Your task to perform on an android device: View the shopping cart on walmart. Add "bose soundlink mini" to the cart on walmart Image 0: 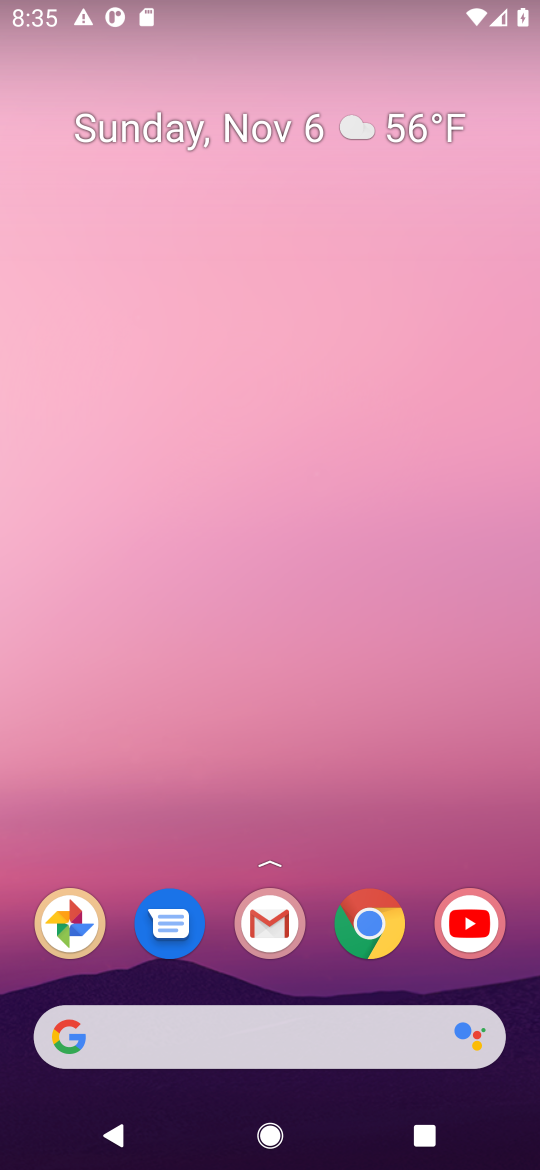
Step 0: click (387, 917)
Your task to perform on an android device: View the shopping cart on walmart. Add "bose soundlink mini" to the cart on walmart Image 1: 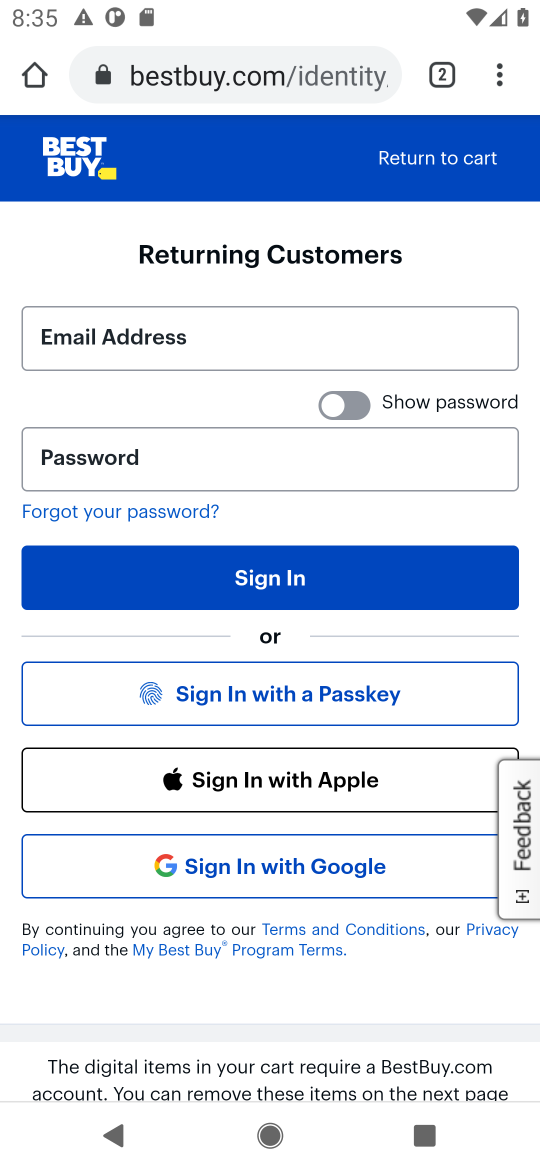
Step 1: click (248, 80)
Your task to perform on an android device: View the shopping cart on walmart. Add "bose soundlink mini" to the cart on walmart Image 2: 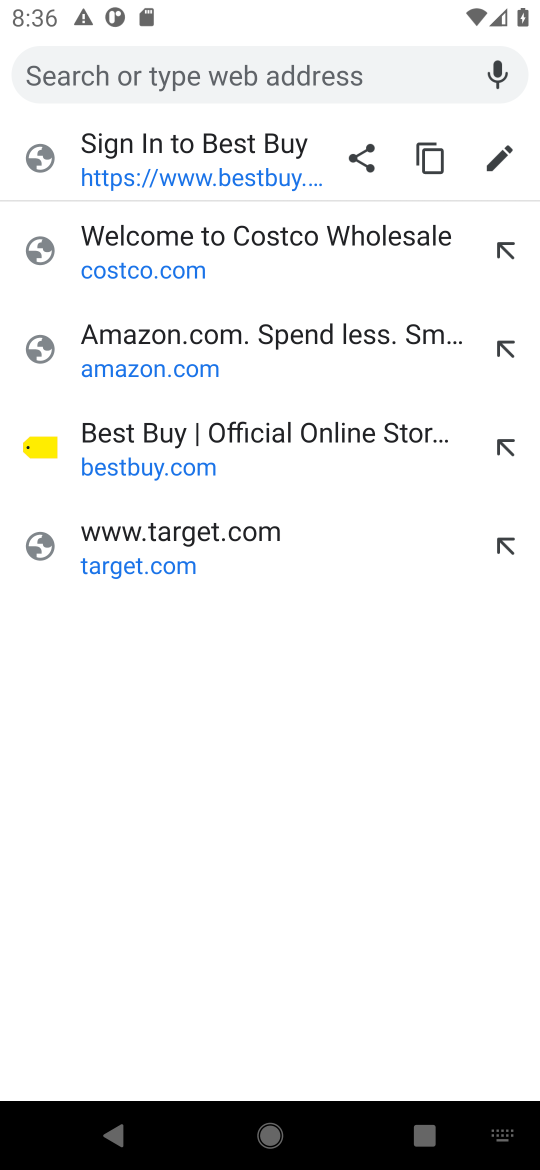
Step 2: type "walmart.com"
Your task to perform on an android device: View the shopping cart on walmart. Add "bose soundlink mini" to the cart on walmart Image 3: 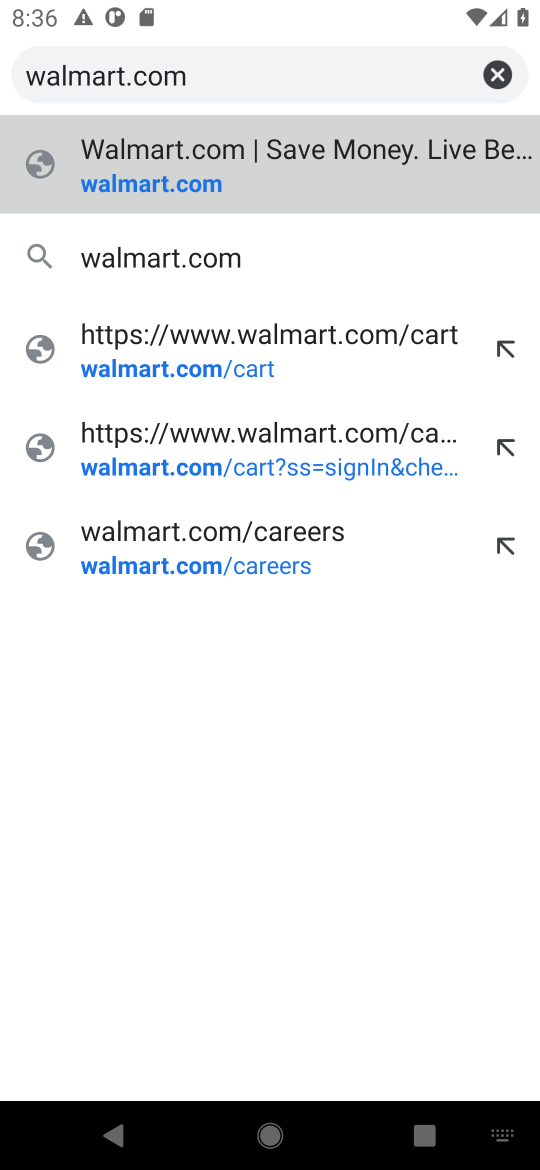
Step 3: click (146, 195)
Your task to perform on an android device: View the shopping cart on walmart. Add "bose soundlink mini" to the cart on walmart Image 4: 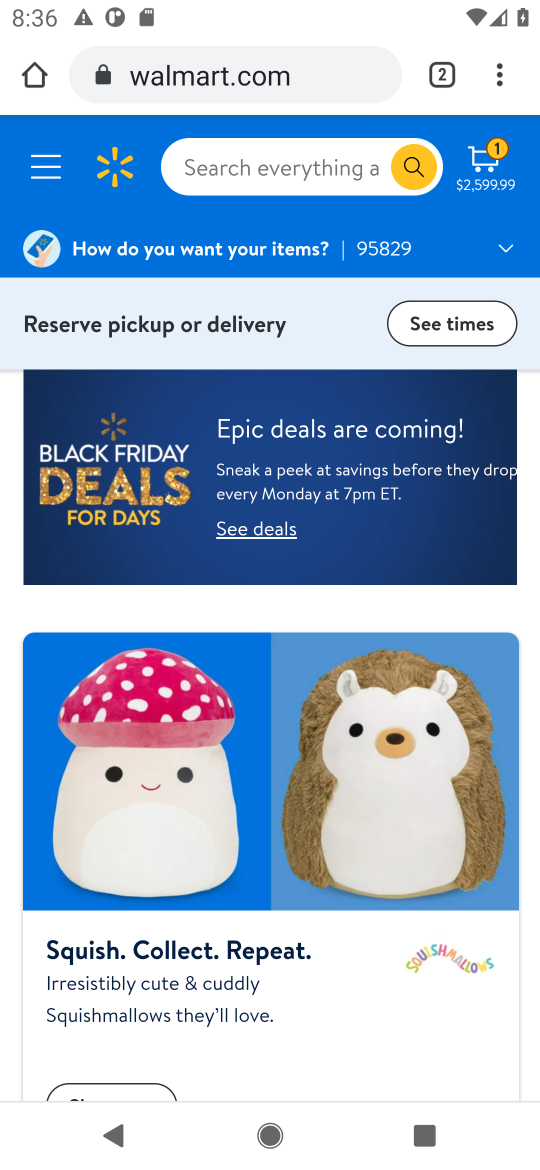
Step 4: drag from (226, 854) to (234, 445)
Your task to perform on an android device: View the shopping cart on walmart. Add "bose soundlink mini" to the cart on walmart Image 5: 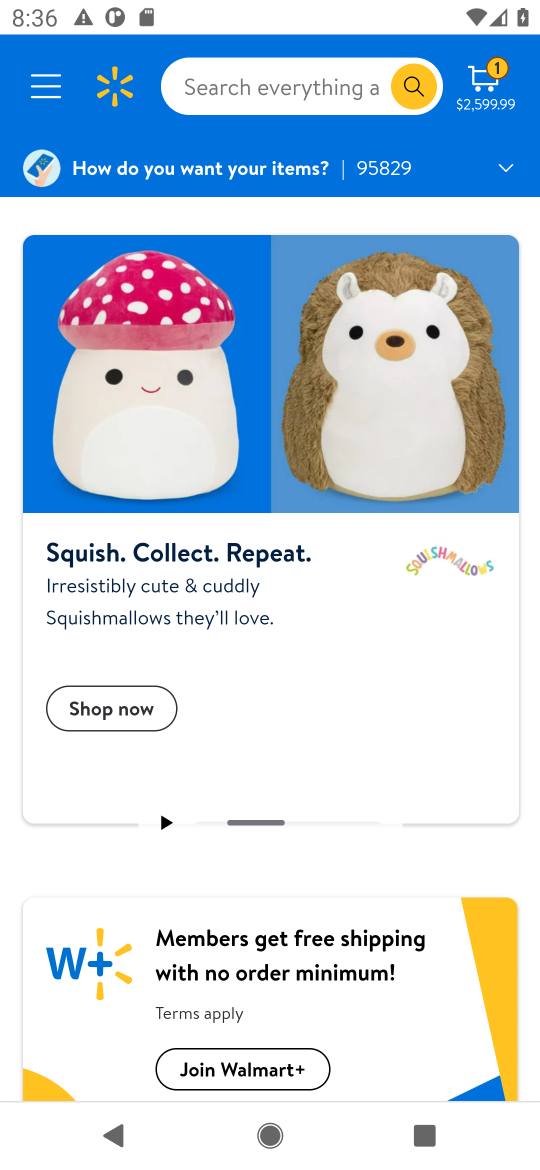
Step 5: click (488, 95)
Your task to perform on an android device: View the shopping cart on walmart. Add "bose soundlink mini" to the cart on walmart Image 6: 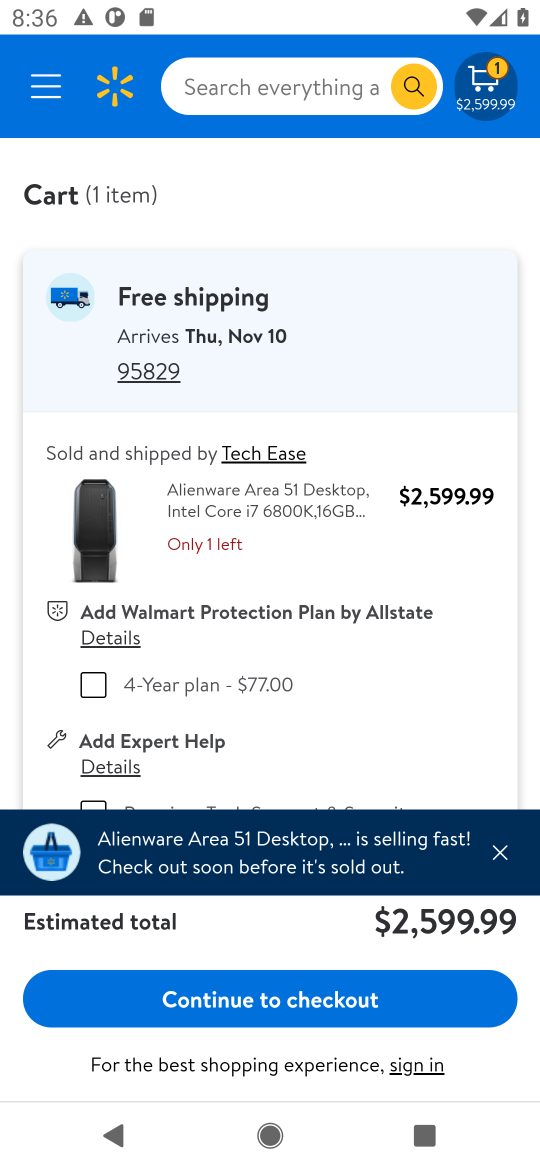
Step 6: click (322, 89)
Your task to perform on an android device: View the shopping cart on walmart. Add "bose soundlink mini" to the cart on walmart Image 7: 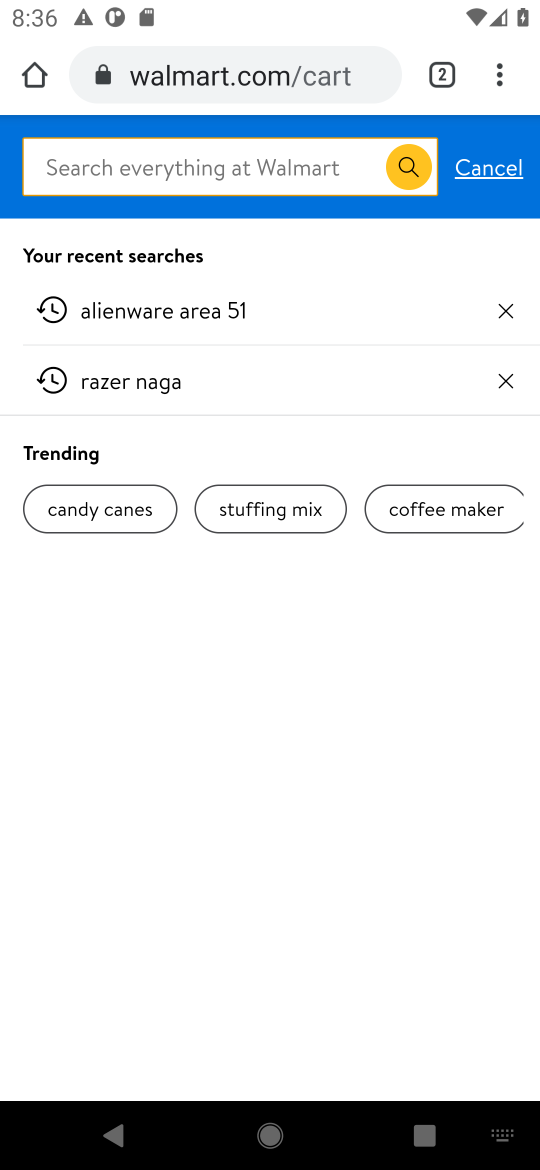
Step 7: type "bose soundlink mini"
Your task to perform on an android device: View the shopping cart on walmart. Add "bose soundlink mini" to the cart on walmart Image 8: 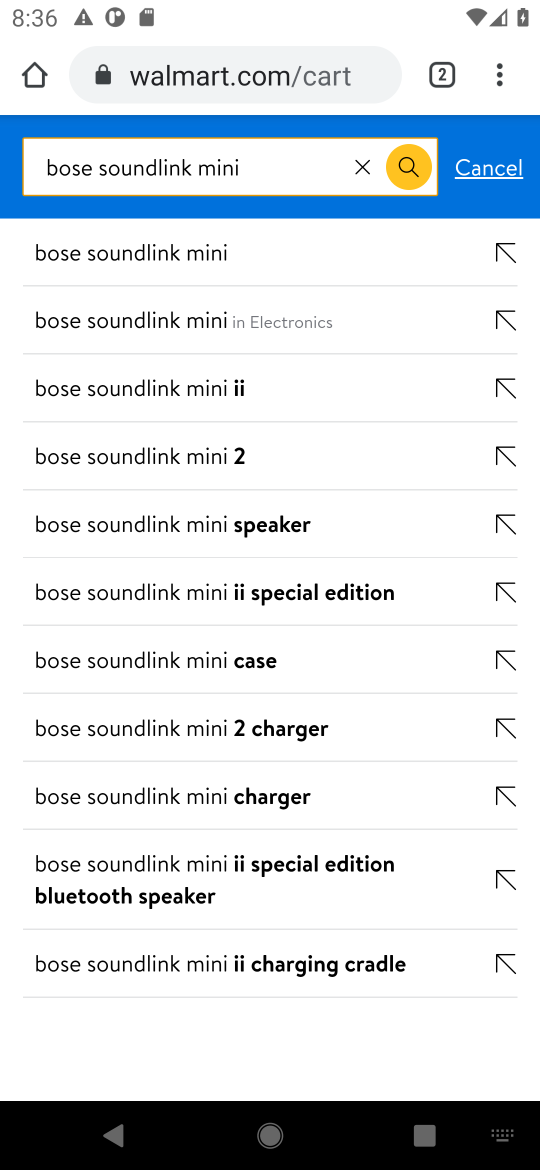
Step 8: click (147, 254)
Your task to perform on an android device: View the shopping cart on walmart. Add "bose soundlink mini" to the cart on walmart Image 9: 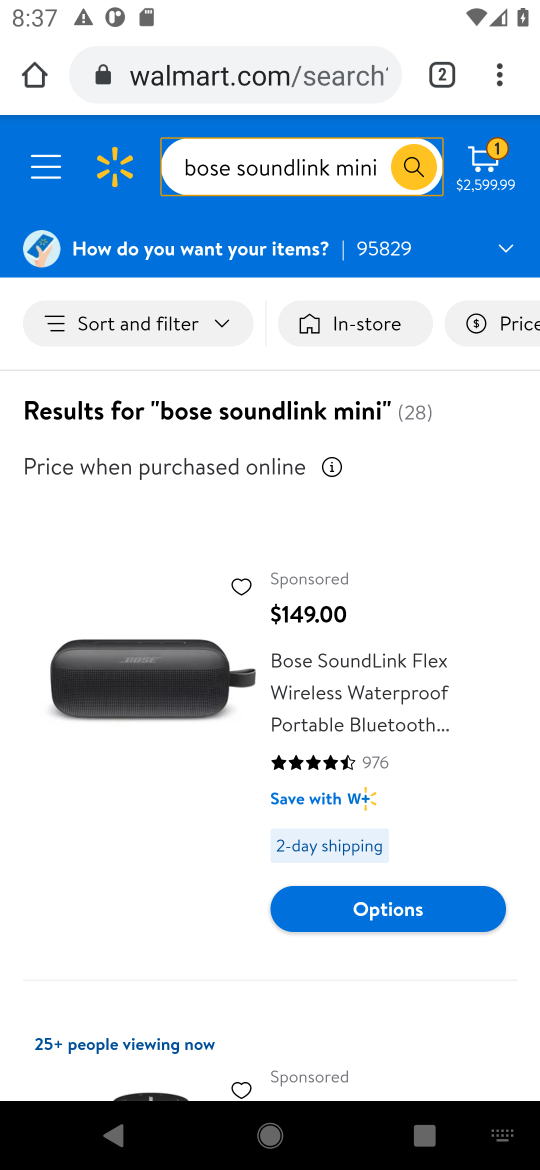
Step 9: drag from (297, 502) to (302, 281)
Your task to perform on an android device: View the shopping cart on walmart. Add "bose soundlink mini" to the cart on walmart Image 10: 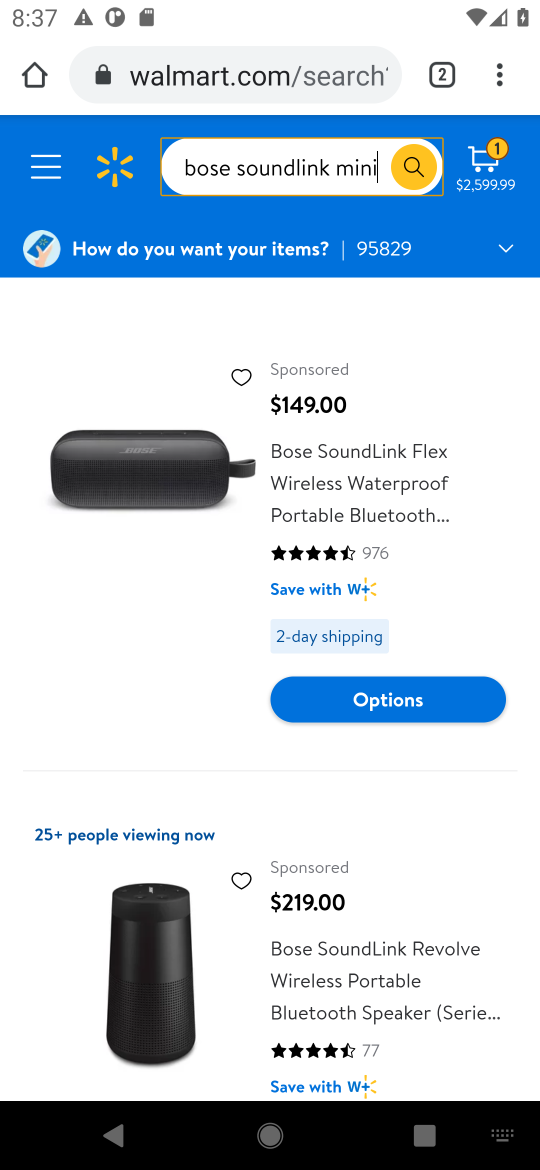
Step 10: drag from (225, 965) to (255, 234)
Your task to perform on an android device: View the shopping cart on walmart. Add "bose soundlink mini" to the cart on walmart Image 11: 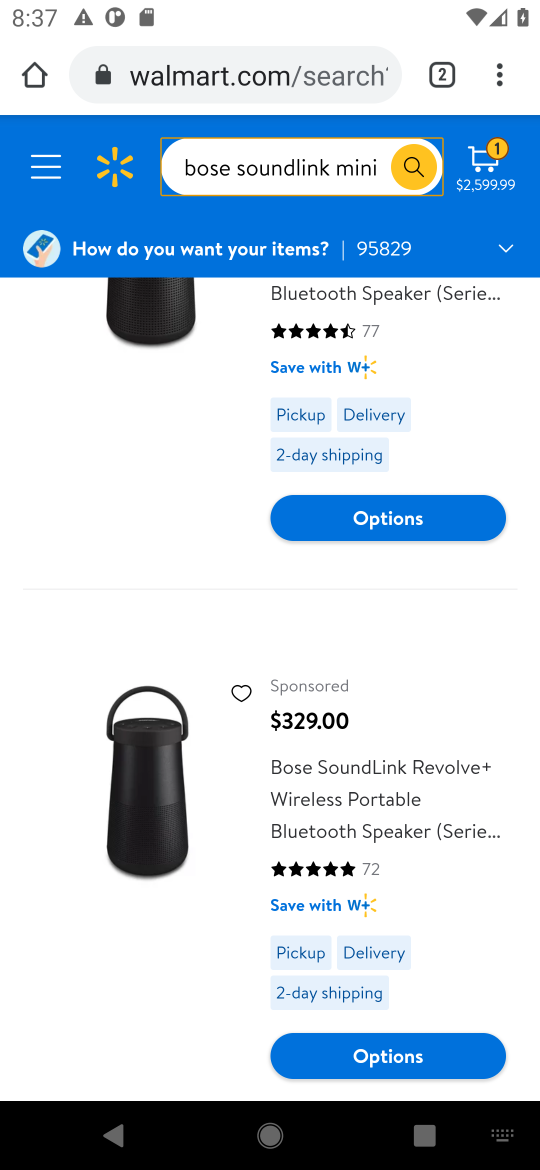
Step 11: drag from (215, 964) to (246, 383)
Your task to perform on an android device: View the shopping cart on walmart. Add "bose soundlink mini" to the cart on walmart Image 12: 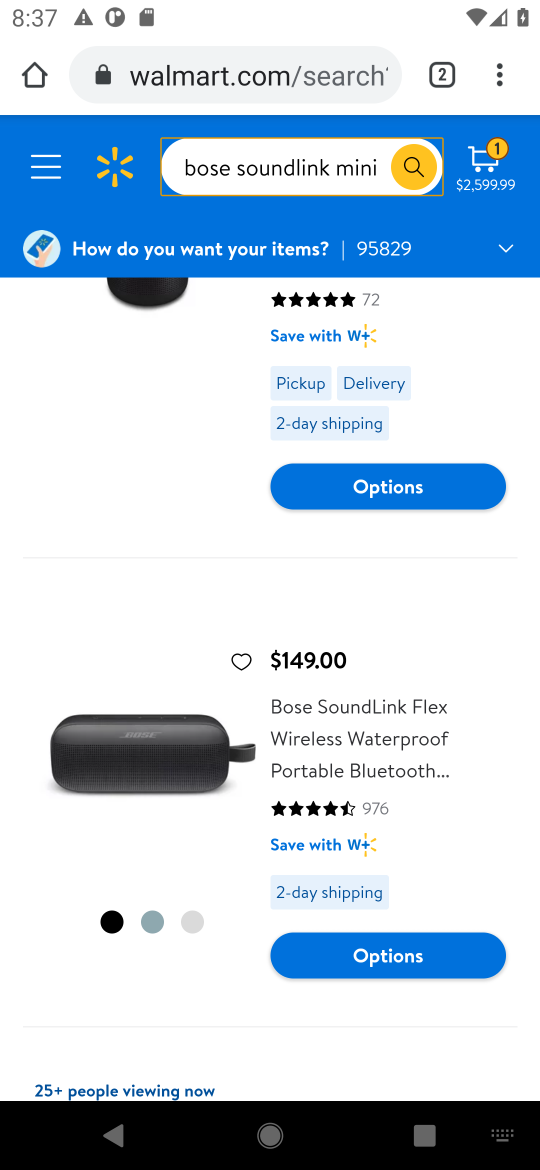
Step 12: drag from (254, 857) to (262, 307)
Your task to perform on an android device: View the shopping cart on walmart. Add "bose soundlink mini" to the cart on walmart Image 13: 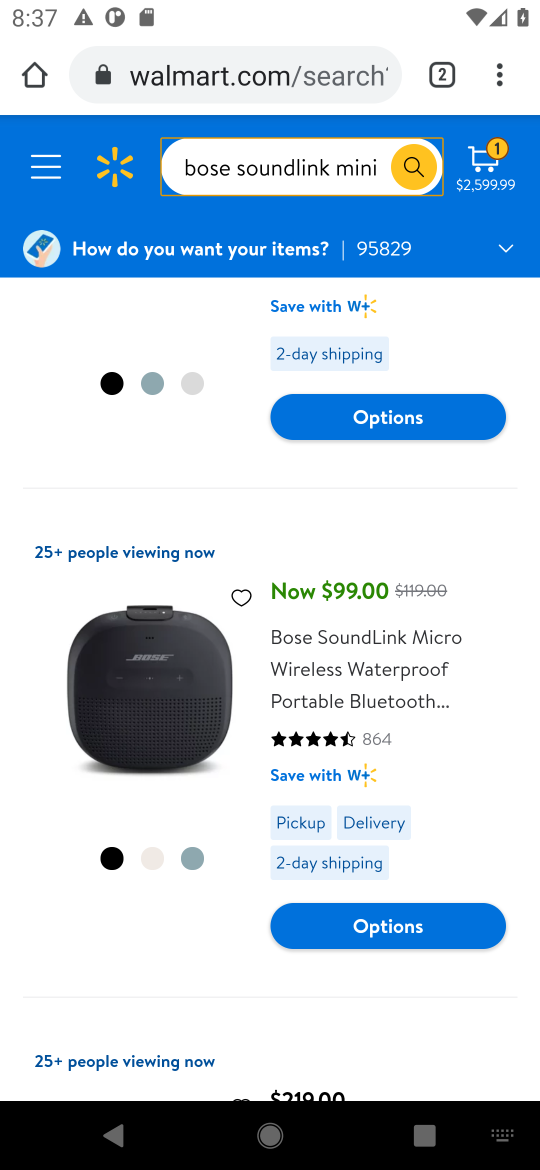
Step 13: drag from (224, 798) to (260, 225)
Your task to perform on an android device: View the shopping cart on walmart. Add "bose soundlink mini" to the cart on walmart Image 14: 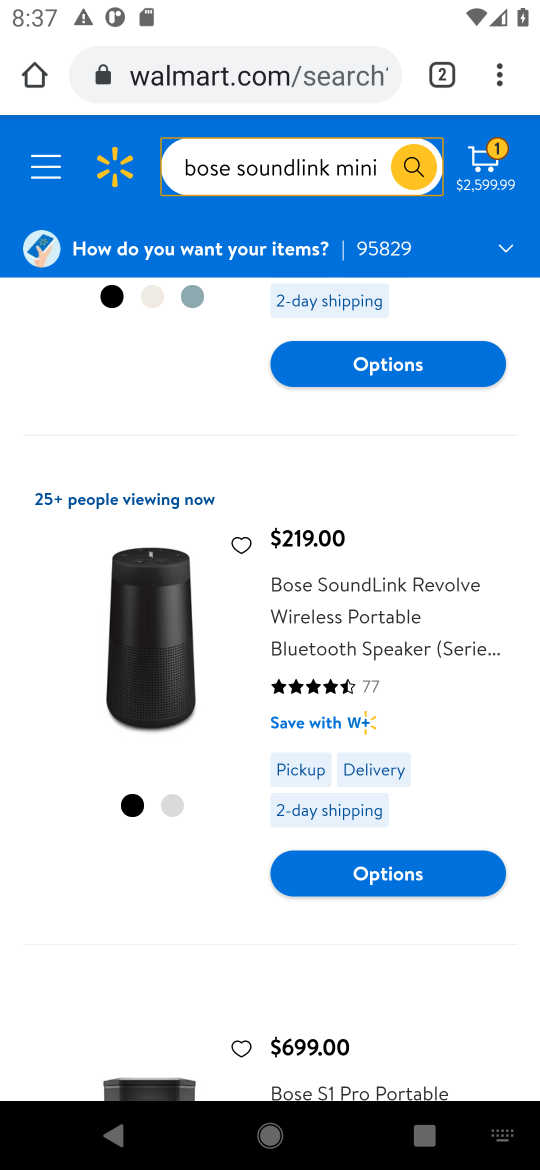
Step 14: drag from (228, 714) to (239, 239)
Your task to perform on an android device: View the shopping cart on walmart. Add "bose soundlink mini" to the cart on walmart Image 15: 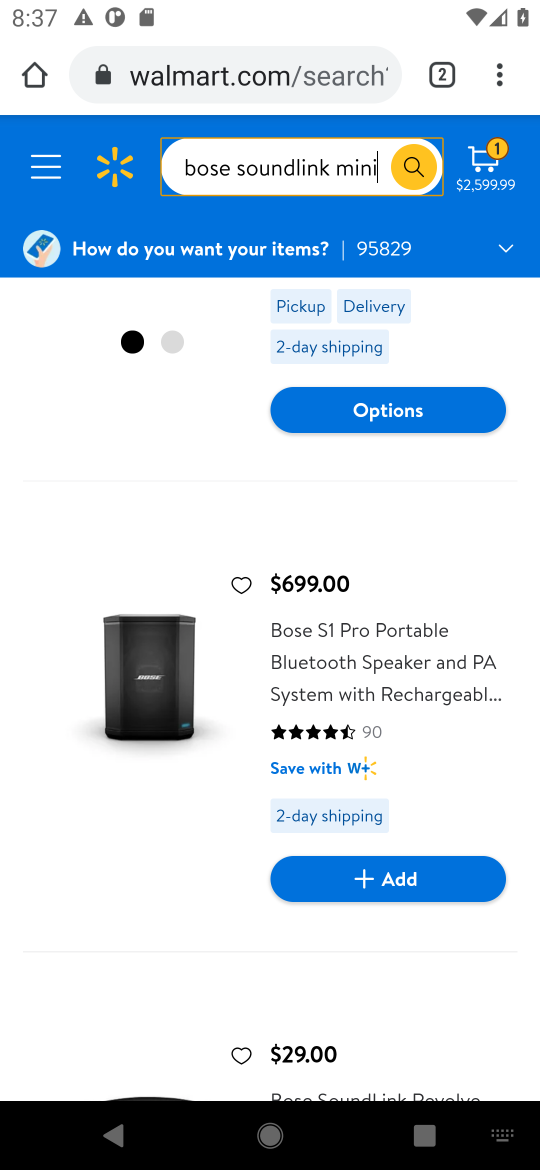
Step 15: drag from (185, 815) to (235, 283)
Your task to perform on an android device: View the shopping cart on walmart. Add "bose soundlink mini" to the cart on walmart Image 16: 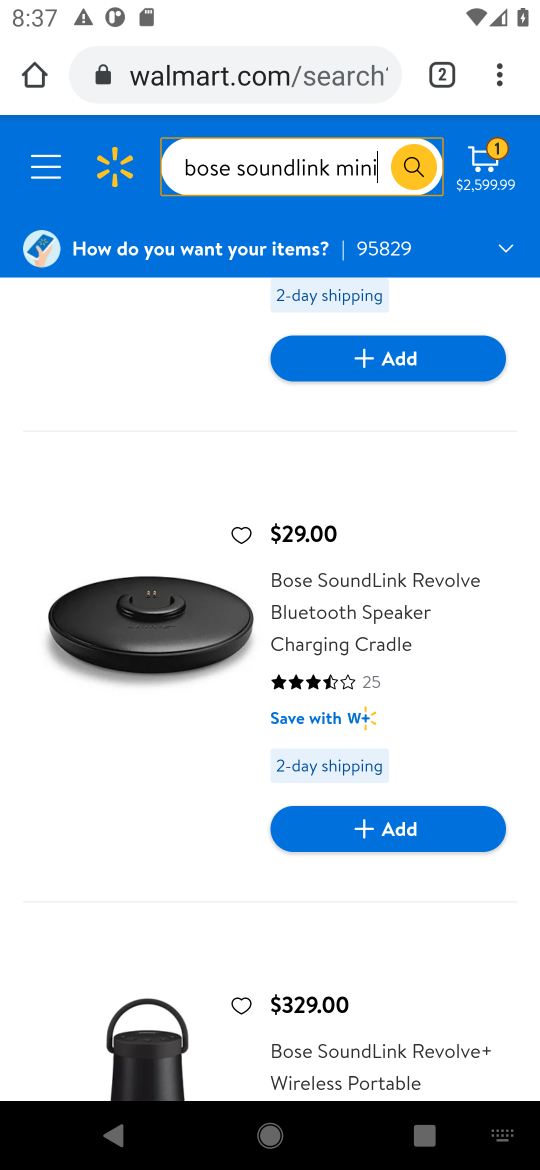
Step 16: drag from (230, 740) to (253, 331)
Your task to perform on an android device: View the shopping cart on walmart. Add "bose soundlink mini" to the cart on walmart Image 17: 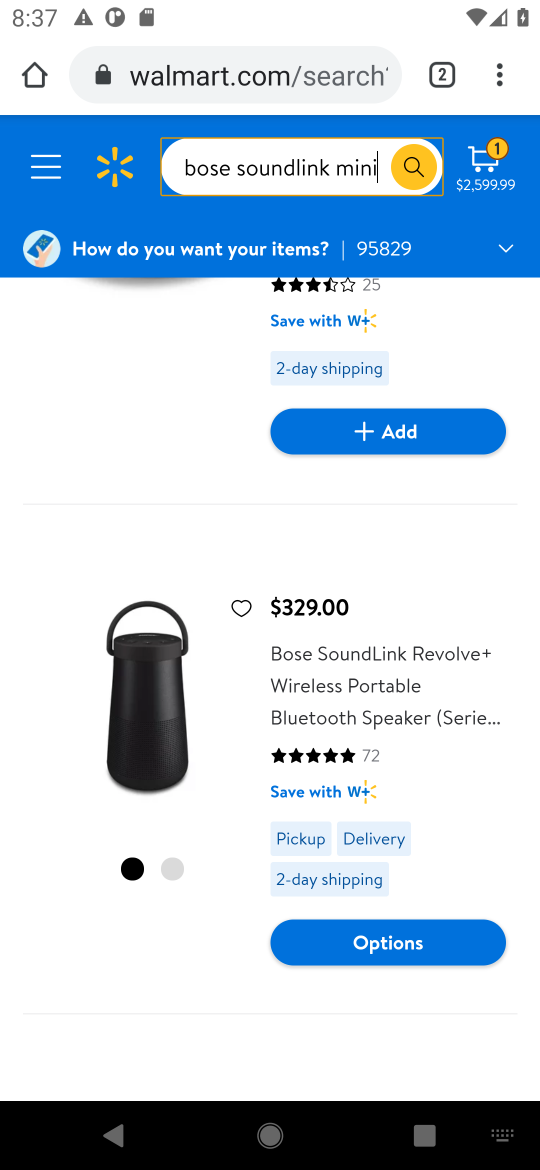
Step 17: drag from (251, 907) to (231, 341)
Your task to perform on an android device: View the shopping cart on walmart. Add "bose soundlink mini" to the cart on walmart Image 18: 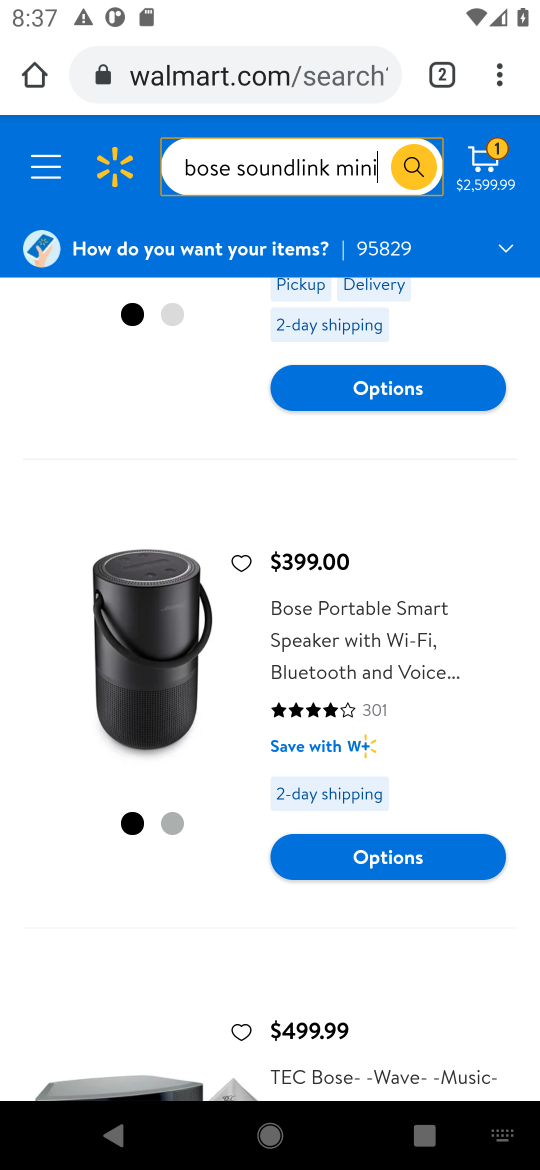
Step 18: drag from (213, 834) to (210, 311)
Your task to perform on an android device: View the shopping cart on walmart. Add "bose soundlink mini" to the cart on walmart Image 19: 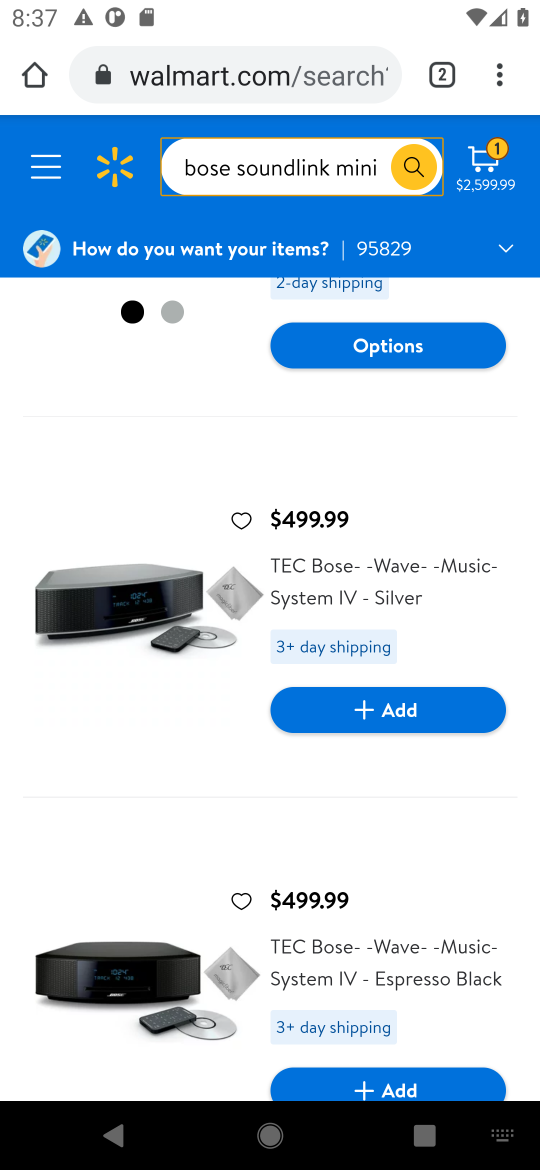
Step 19: drag from (173, 843) to (201, 316)
Your task to perform on an android device: View the shopping cart on walmart. Add "bose soundlink mini" to the cart on walmart Image 20: 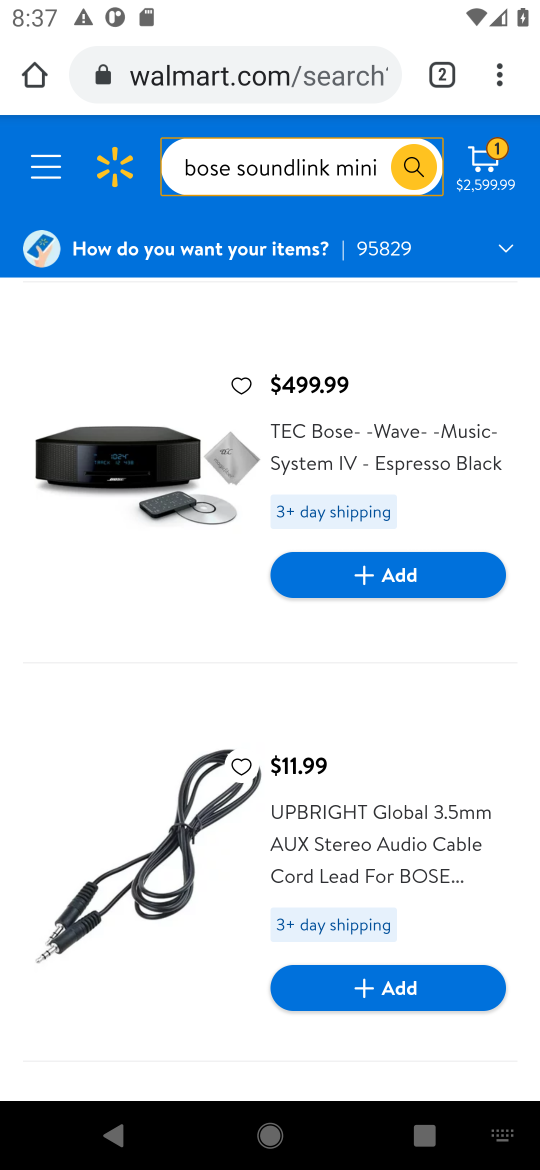
Step 20: click (210, 347)
Your task to perform on an android device: View the shopping cart on walmart. Add "bose soundlink mini" to the cart on walmart Image 21: 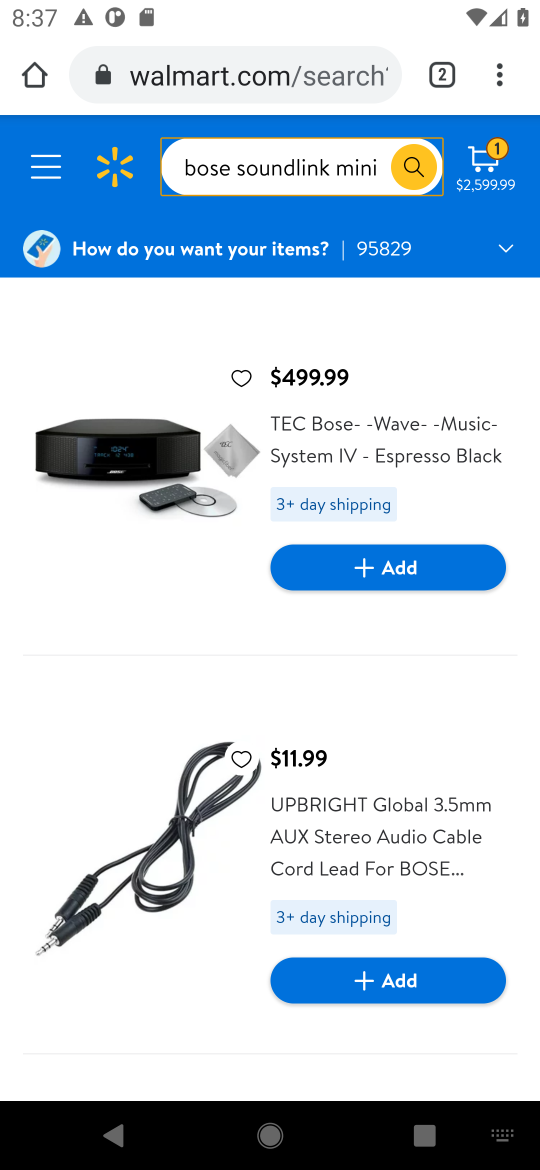
Step 21: task complete